Your task to perform on an android device: When is my next appointment? Image 0: 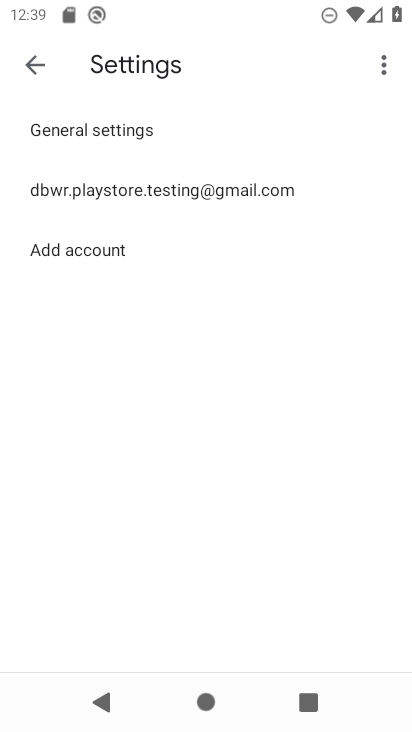
Step 0: press home button
Your task to perform on an android device: When is my next appointment? Image 1: 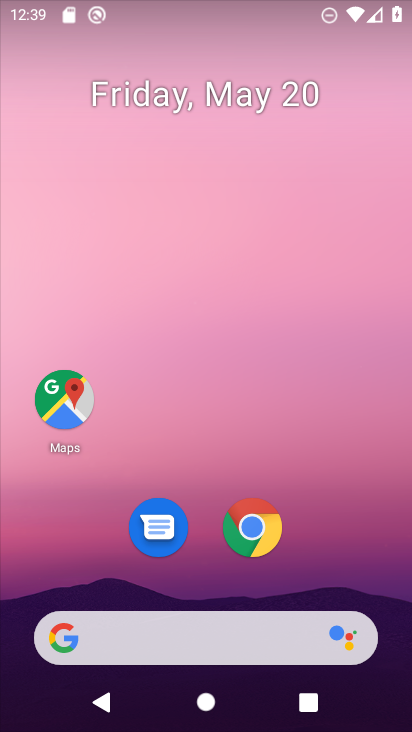
Step 1: drag from (395, 688) to (365, 322)
Your task to perform on an android device: When is my next appointment? Image 2: 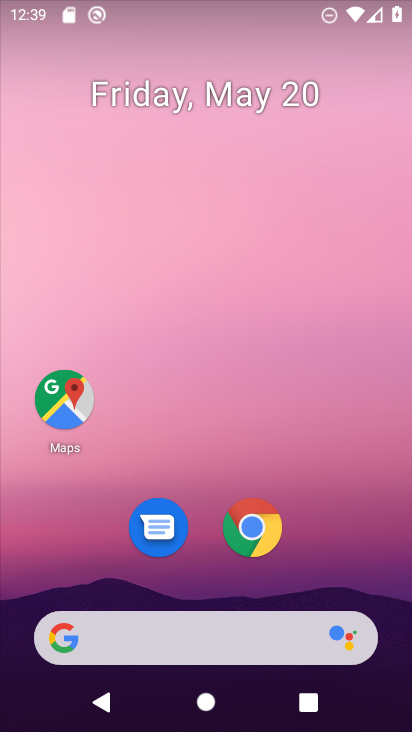
Step 2: drag from (383, 578) to (361, 393)
Your task to perform on an android device: When is my next appointment? Image 3: 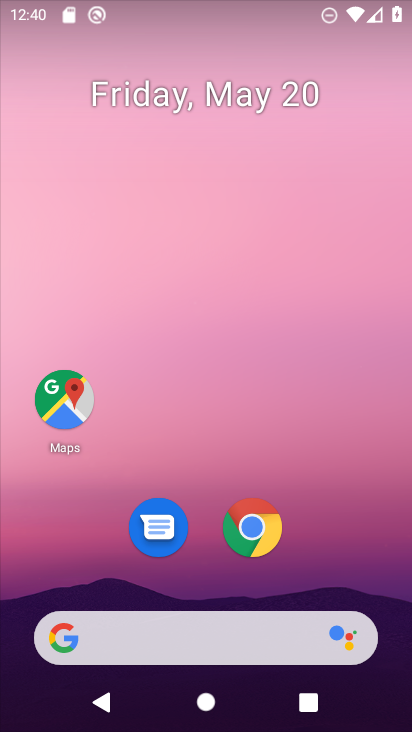
Step 3: drag from (392, 662) to (368, 212)
Your task to perform on an android device: When is my next appointment? Image 4: 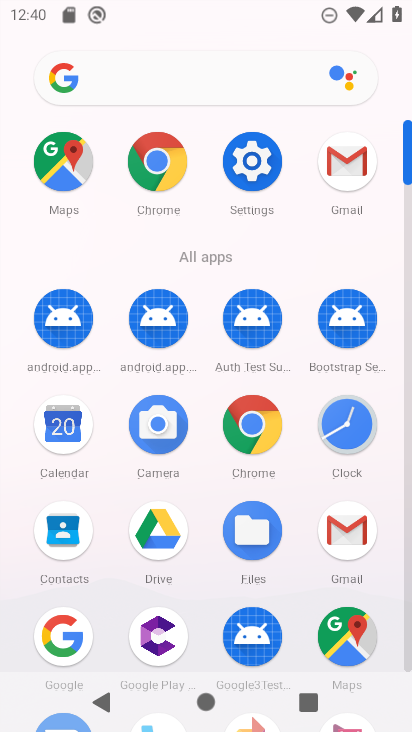
Step 4: click (53, 443)
Your task to perform on an android device: When is my next appointment? Image 5: 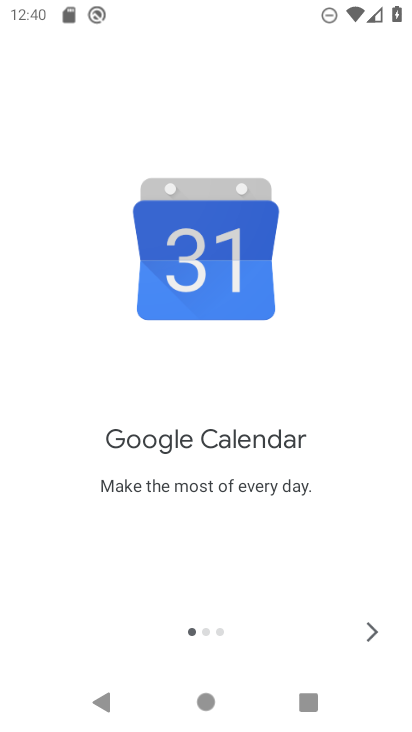
Step 5: click (359, 634)
Your task to perform on an android device: When is my next appointment? Image 6: 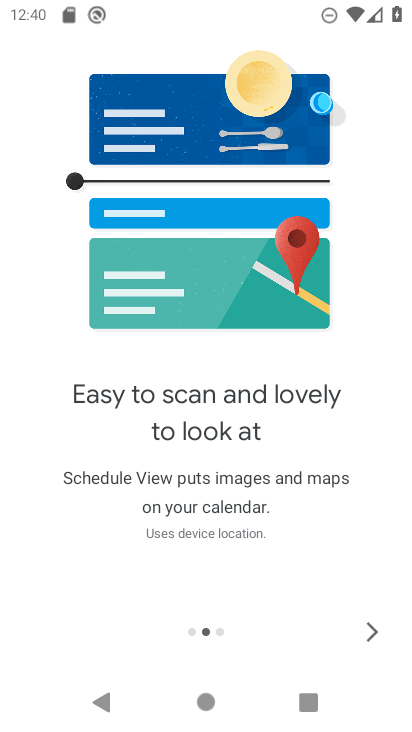
Step 6: click (359, 634)
Your task to perform on an android device: When is my next appointment? Image 7: 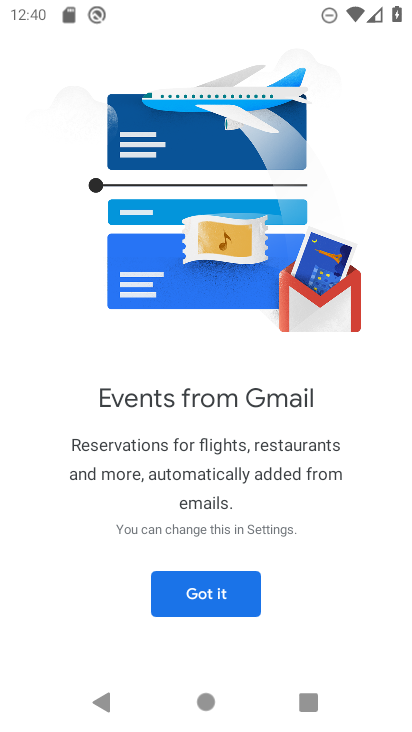
Step 7: click (359, 634)
Your task to perform on an android device: When is my next appointment? Image 8: 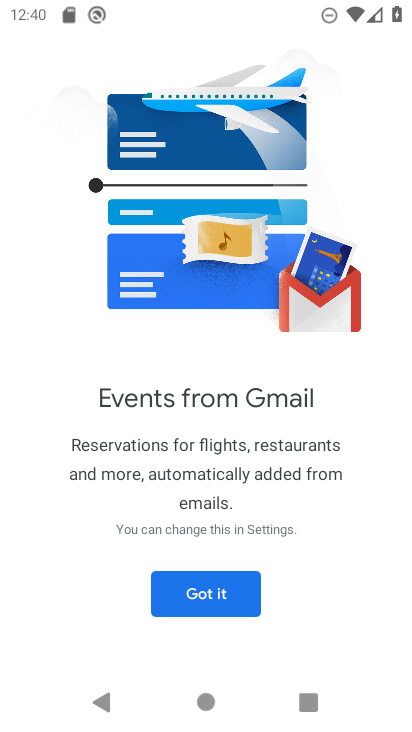
Step 8: click (216, 597)
Your task to perform on an android device: When is my next appointment? Image 9: 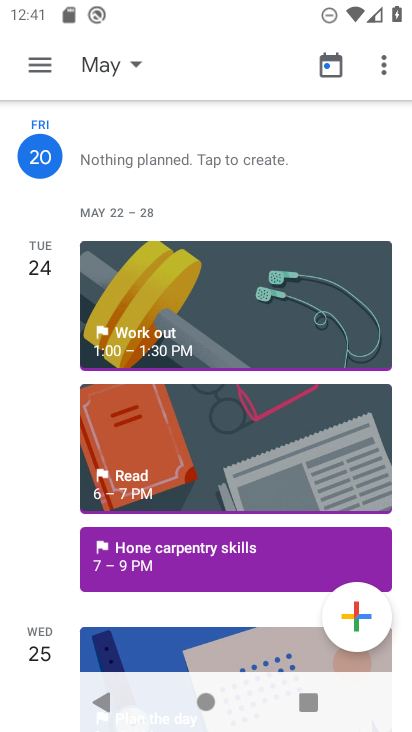
Step 9: click (134, 64)
Your task to perform on an android device: When is my next appointment? Image 10: 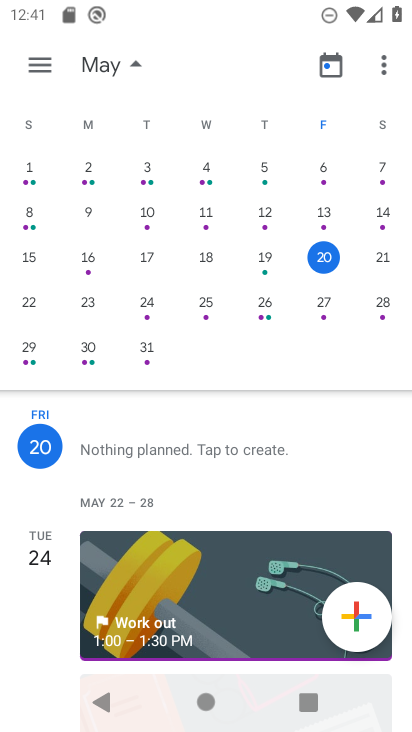
Step 10: click (30, 67)
Your task to perform on an android device: When is my next appointment? Image 11: 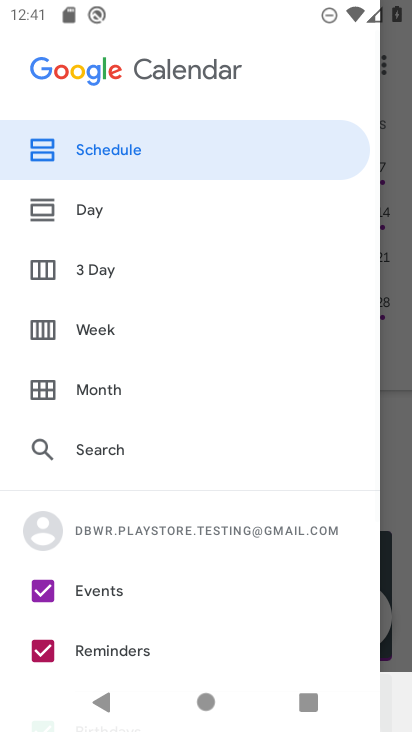
Step 11: click (84, 146)
Your task to perform on an android device: When is my next appointment? Image 12: 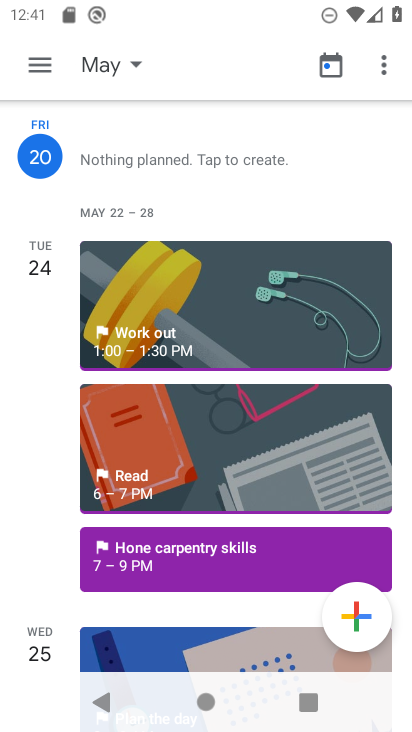
Step 12: click (25, 65)
Your task to perform on an android device: When is my next appointment? Image 13: 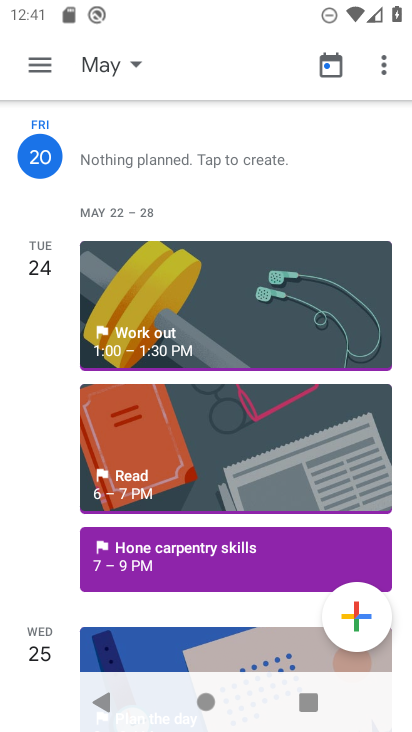
Step 13: click (36, 62)
Your task to perform on an android device: When is my next appointment? Image 14: 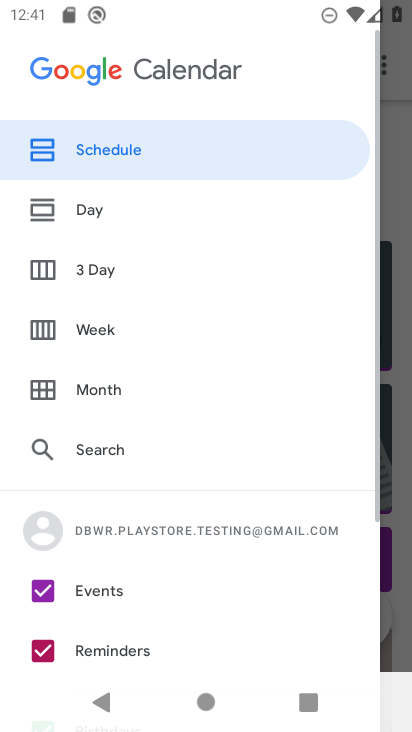
Step 14: drag from (246, 641) to (241, 245)
Your task to perform on an android device: When is my next appointment? Image 15: 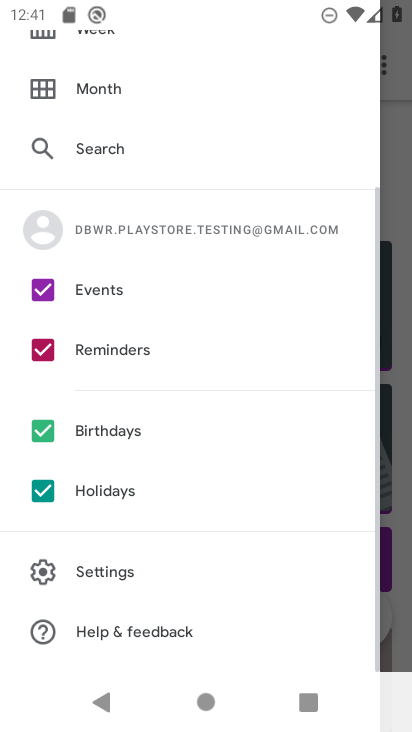
Step 15: click (118, 495)
Your task to perform on an android device: When is my next appointment? Image 16: 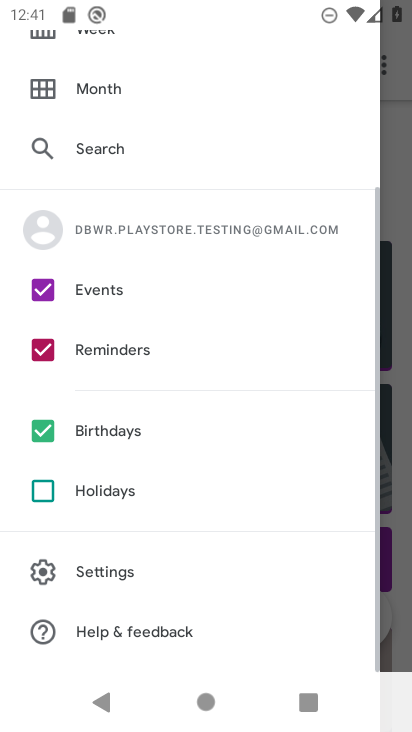
Step 16: click (42, 436)
Your task to perform on an android device: When is my next appointment? Image 17: 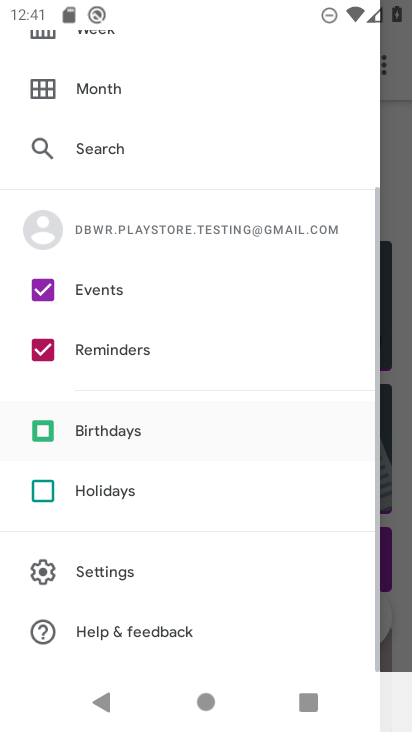
Step 17: click (46, 349)
Your task to perform on an android device: When is my next appointment? Image 18: 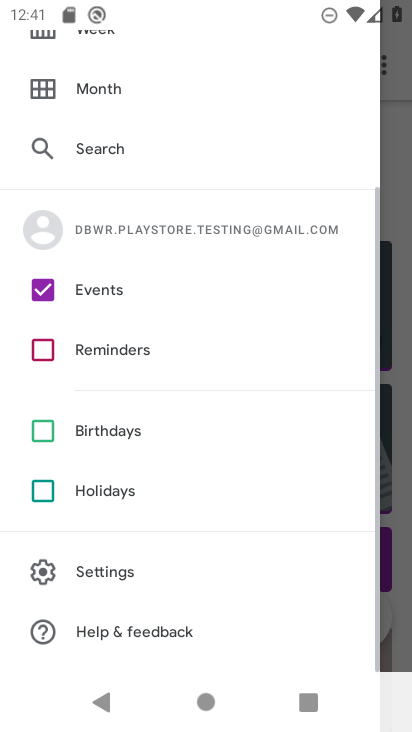
Step 18: drag from (204, 174) to (218, 667)
Your task to perform on an android device: When is my next appointment? Image 19: 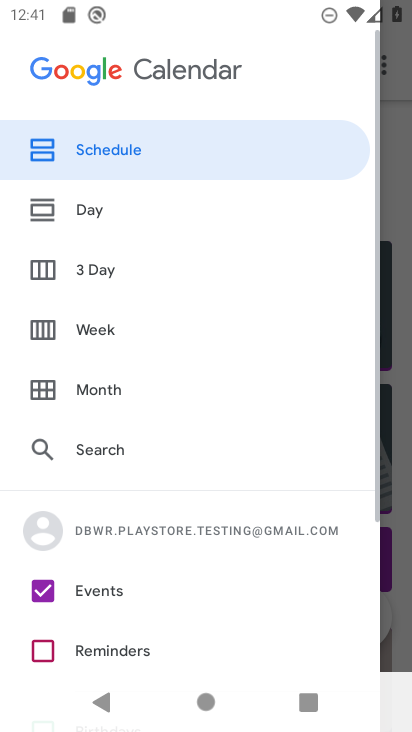
Step 19: click (93, 141)
Your task to perform on an android device: When is my next appointment? Image 20: 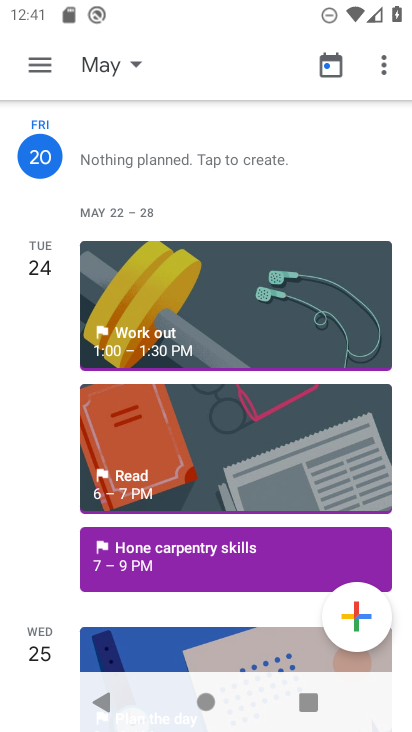
Step 20: task complete